Your task to perform on an android device: toggle pop-ups in chrome Image 0: 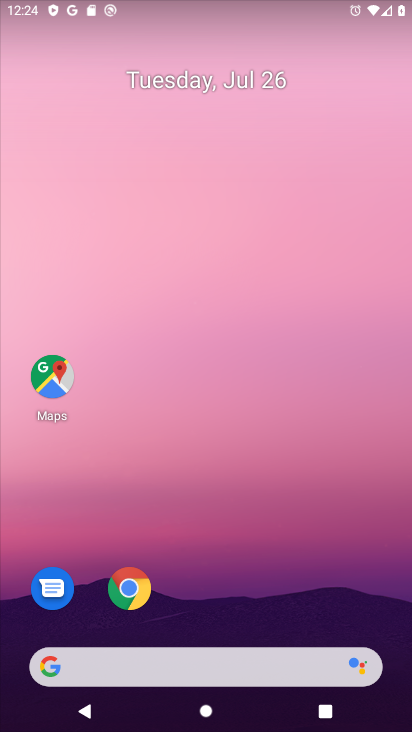
Step 0: drag from (287, 611) to (158, 90)
Your task to perform on an android device: toggle pop-ups in chrome Image 1: 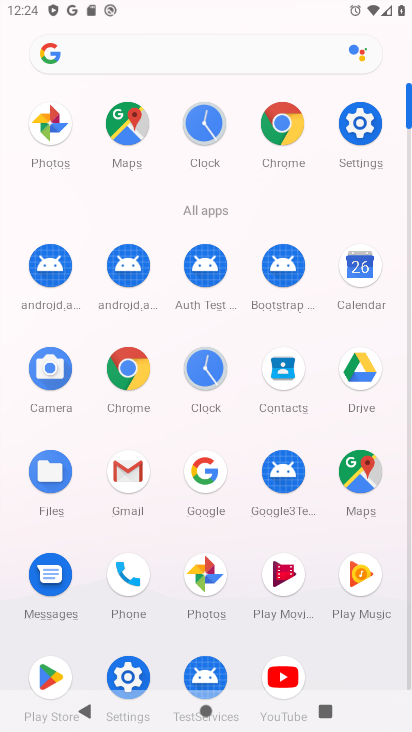
Step 1: click (294, 136)
Your task to perform on an android device: toggle pop-ups in chrome Image 2: 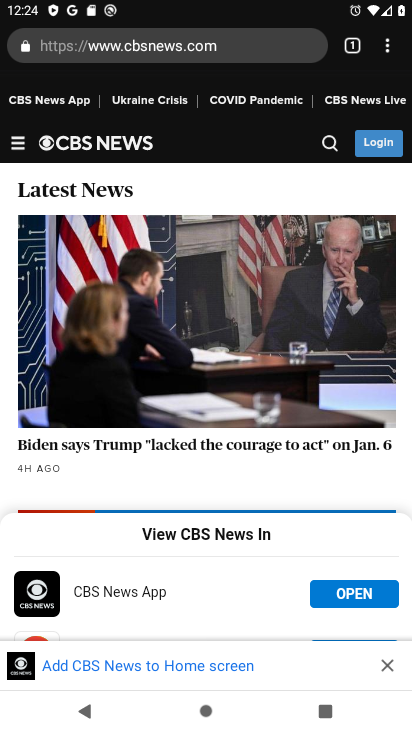
Step 2: click (394, 41)
Your task to perform on an android device: toggle pop-ups in chrome Image 3: 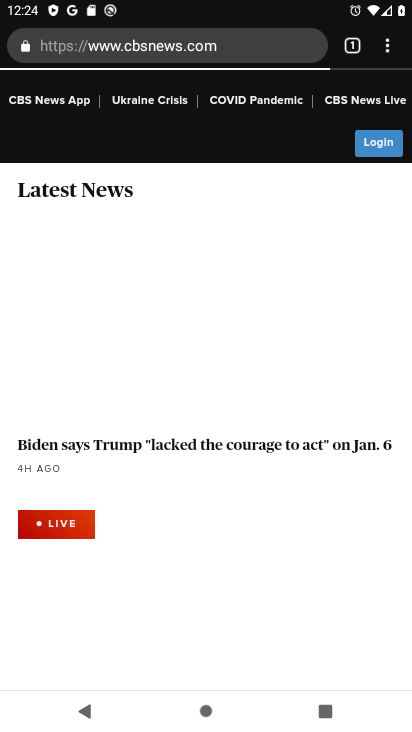
Step 3: click (394, 41)
Your task to perform on an android device: toggle pop-ups in chrome Image 4: 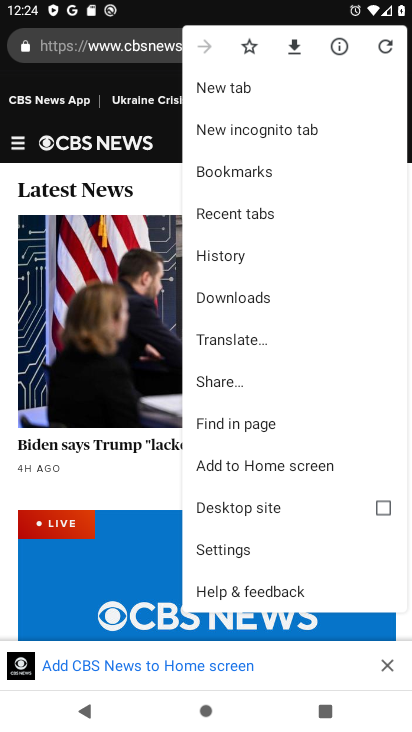
Step 4: click (283, 555)
Your task to perform on an android device: toggle pop-ups in chrome Image 5: 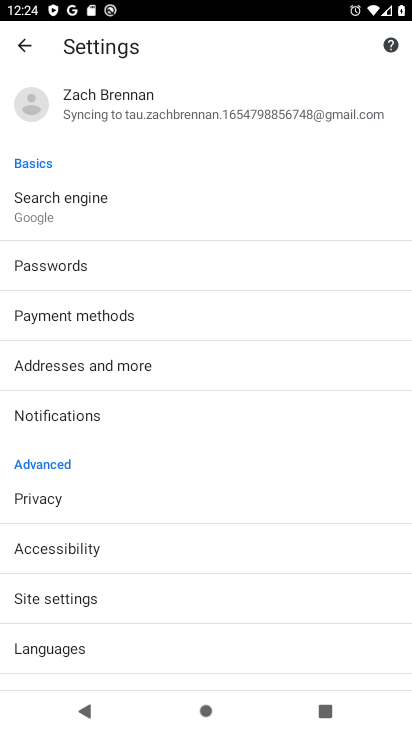
Step 5: drag from (189, 599) to (162, 254)
Your task to perform on an android device: toggle pop-ups in chrome Image 6: 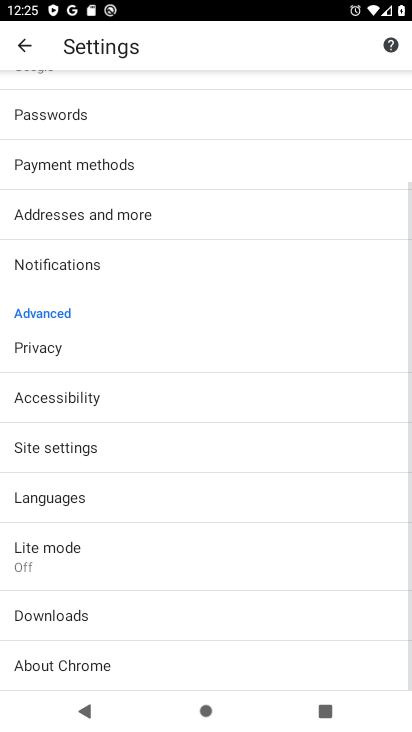
Step 6: click (165, 447)
Your task to perform on an android device: toggle pop-ups in chrome Image 7: 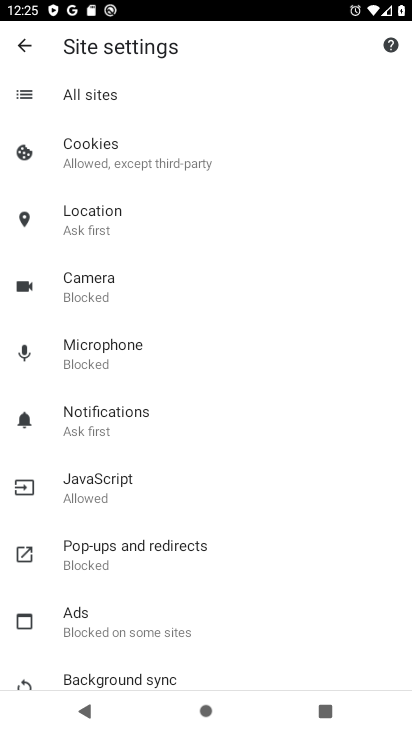
Step 7: click (205, 561)
Your task to perform on an android device: toggle pop-ups in chrome Image 8: 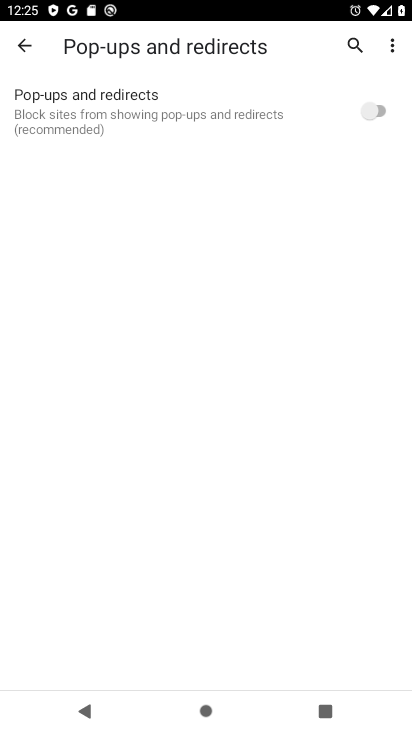
Step 8: click (365, 116)
Your task to perform on an android device: toggle pop-ups in chrome Image 9: 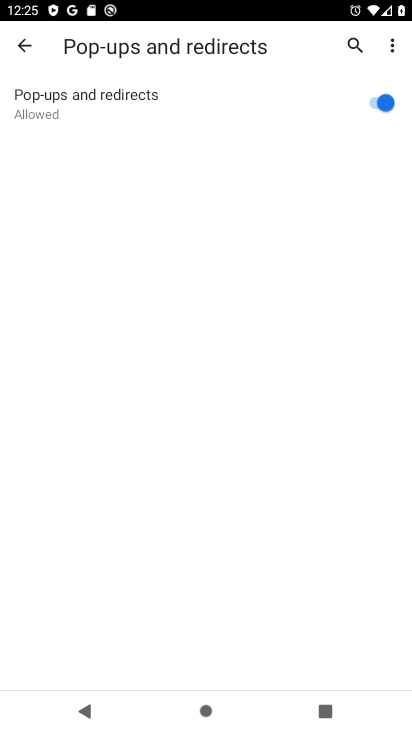
Step 9: task complete